Your task to perform on an android device: toggle improve location accuracy Image 0: 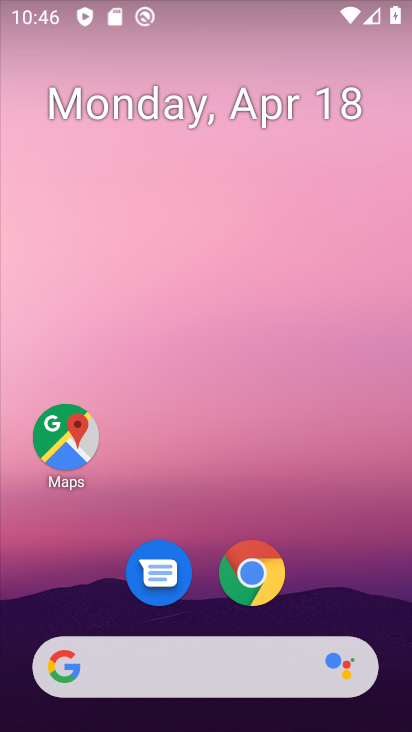
Step 0: drag from (322, 503) to (322, 88)
Your task to perform on an android device: toggle improve location accuracy Image 1: 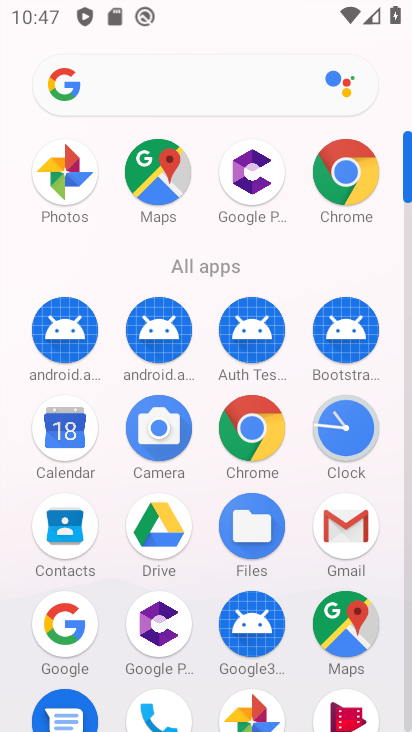
Step 1: drag from (298, 297) to (296, 39)
Your task to perform on an android device: toggle improve location accuracy Image 2: 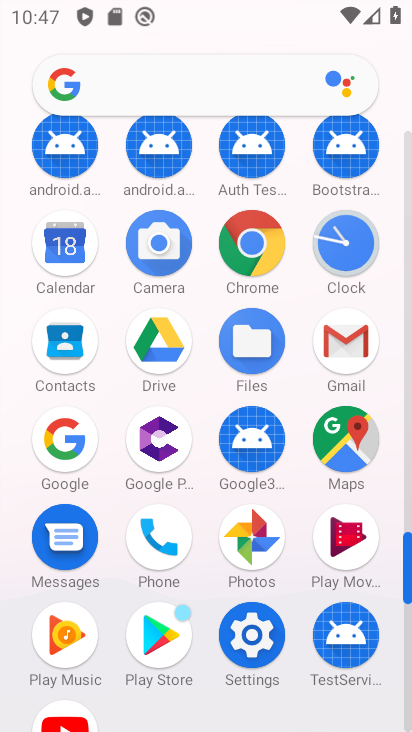
Step 2: click (255, 635)
Your task to perform on an android device: toggle improve location accuracy Image 3: 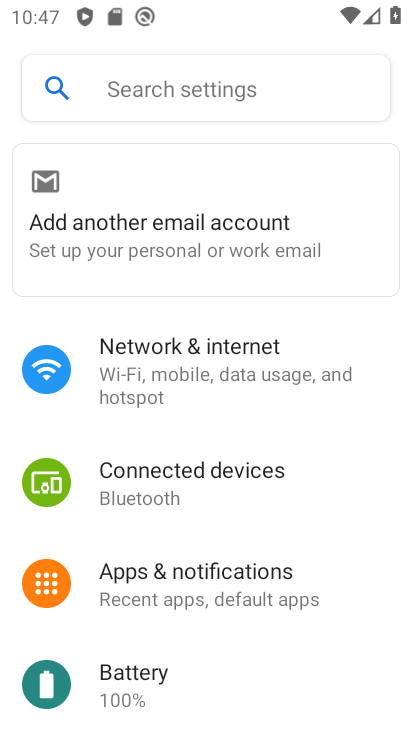
Step 3: drag from (324, 644) to (316, 199)
Your task to perform on an android device: toggle improve location accuracy Image 4: 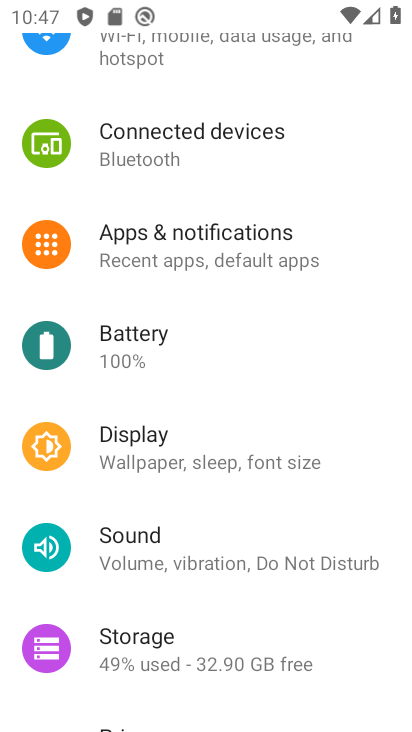
Step 4: drag from (302, 551) to (304, 163)
Your task to perform on an android device: toggle improve location accuracy Image 5: 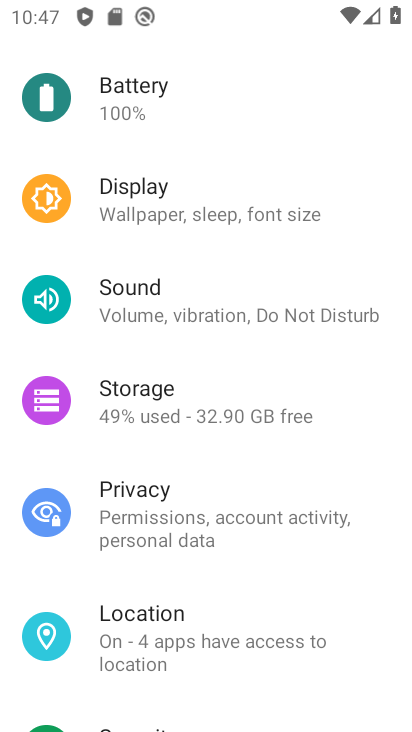
Step 5: click (143, 620)
Your task to perform on an android device: toggle improve location accuracy Image 6: 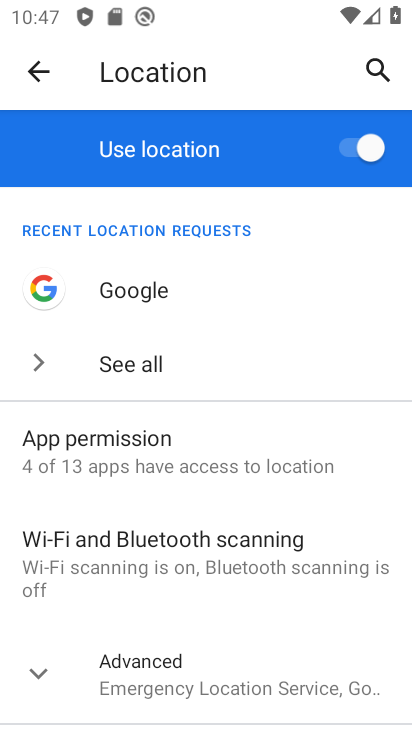
Step 6: click (148, 678)
Your task to perform on an android device: toggle improve location accuracy Image 7: 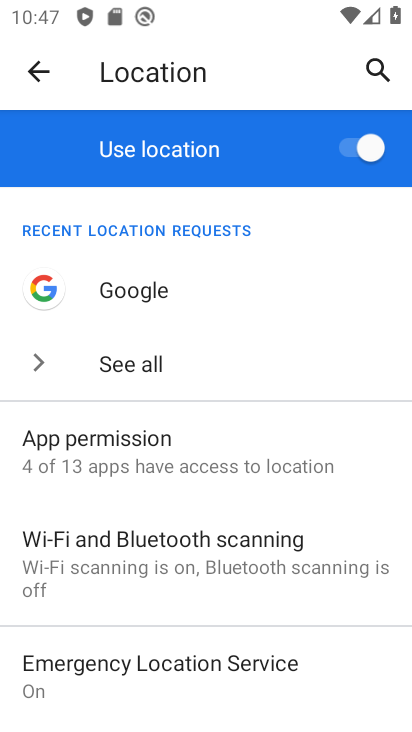
Step 7: drag from (313, 666) to (335, 305)
Your task to perform on an android device: toggle improve location accuracy Image 8: 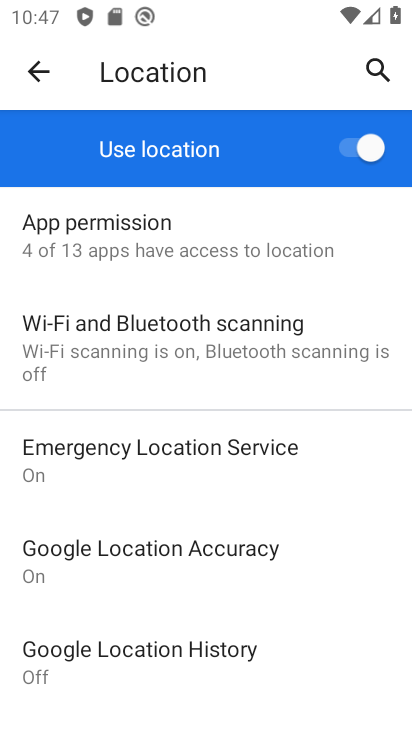
Step 8: click (214, 549)
Your task to perform on an android device: toggle improve location accuracy Image 9: 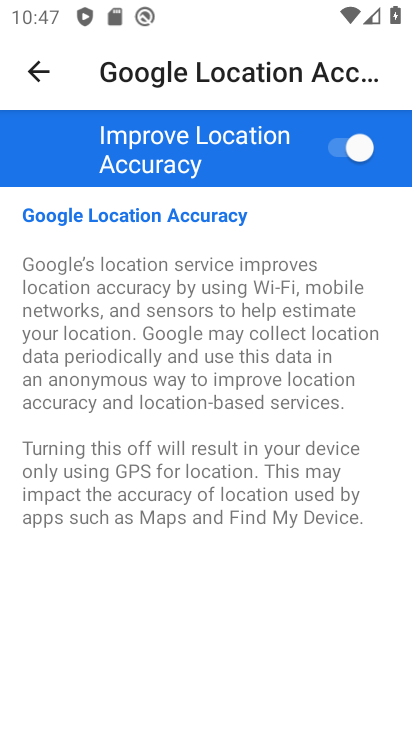
Step 9: click (333, 144)
Your task to perform on an android device: toggle improve location accuracy Image 10: 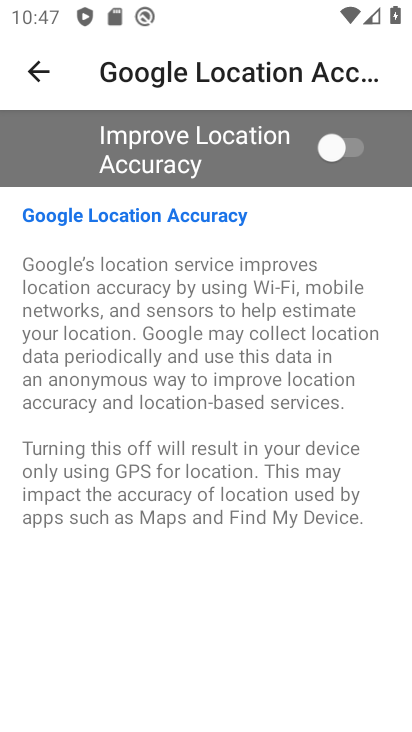
Step 10: task complete